Your task to perform on an android device: Open maps Image 0: 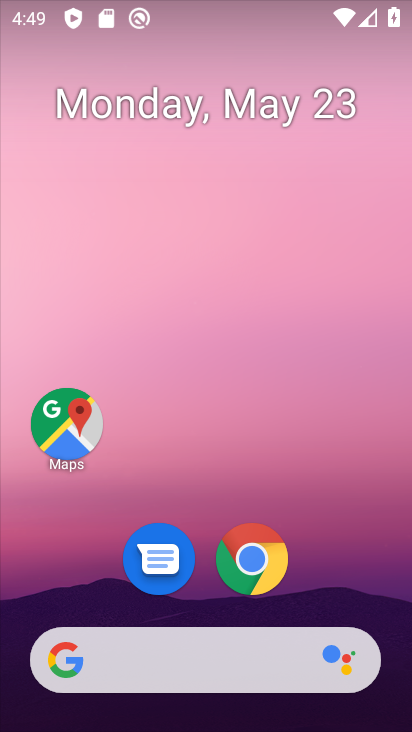
Step 0: drag from (288, 623) to (351, 147)
Your task to perform on an android device: Open maps Image 1: 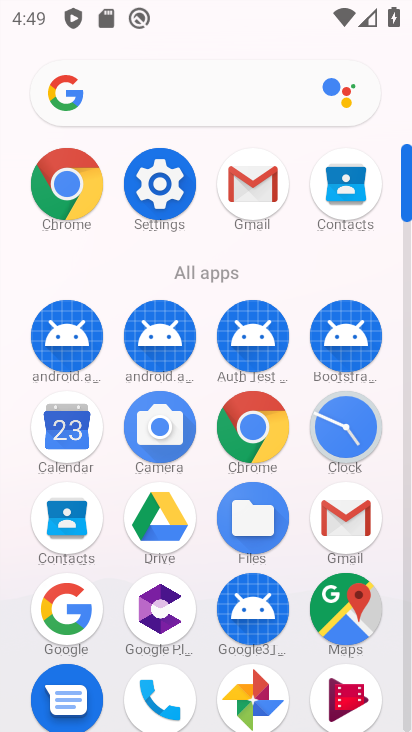
Step 1: click (337, 595)
Your task to perform on an android device: Open maps Image 2: 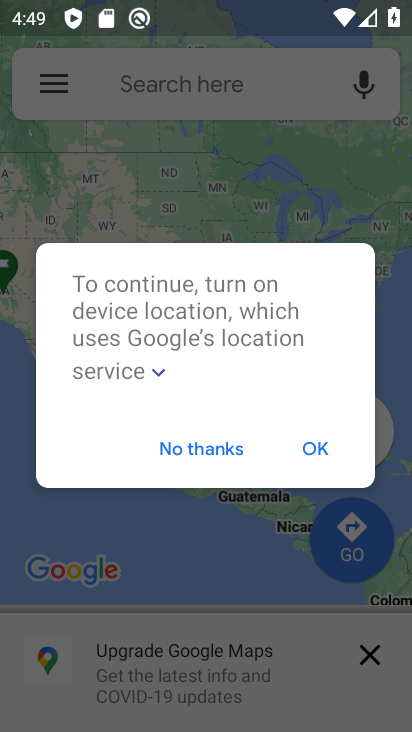
Step 2: click (210, 442)
Your task to perform on an android device: Open maps Image 3: 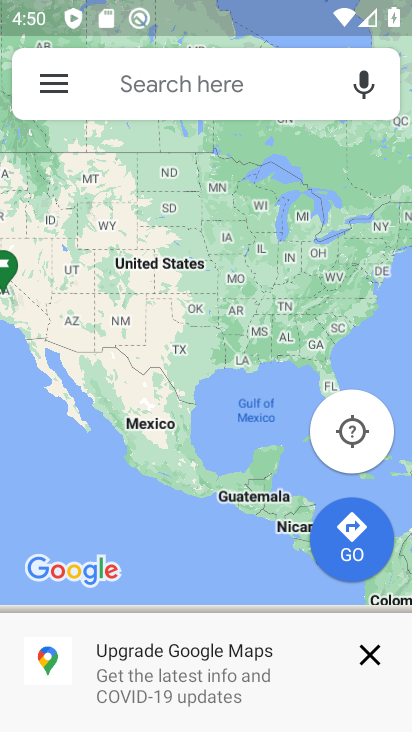
Step 3: task complete